Your task to perform on an android device: Open network settings Image 0: 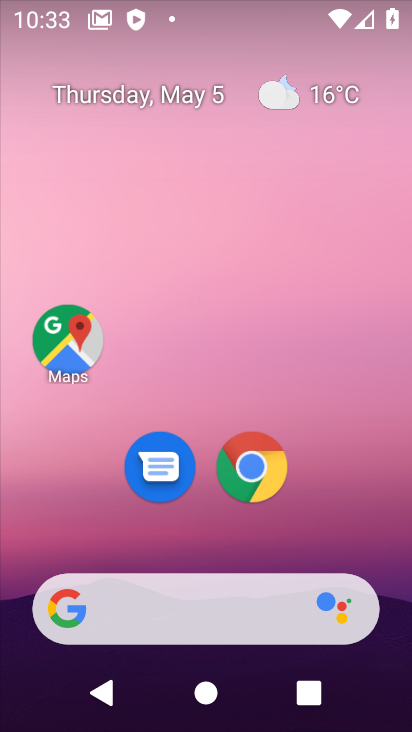
Step 0: drag from (210, 501) to (195, 237)
Your task to perform on an android device: Open network settings Image 1: 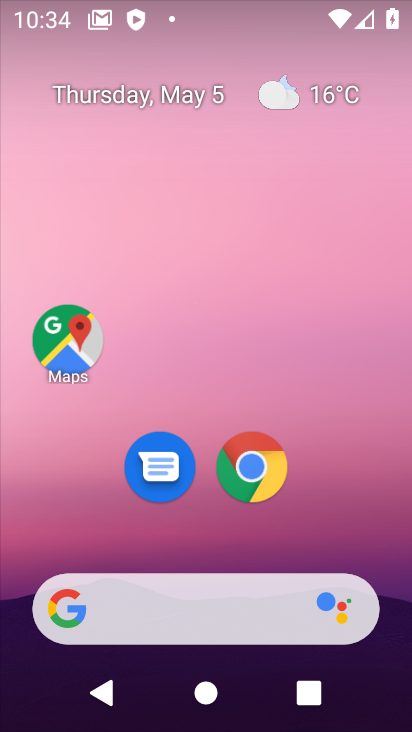
Step 1: drag from (200, 557) to (195, 158)
Your task to perform on an android device: Open network settings Image 2: 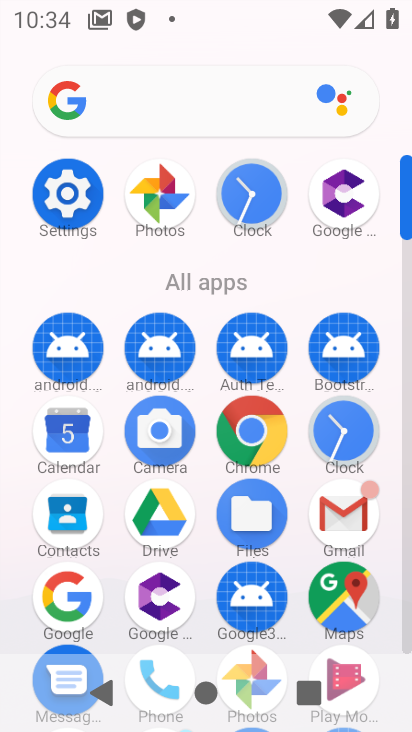
Step 2: click (75, 204)
Your task to perform on an android device: Open network settings Image 3: 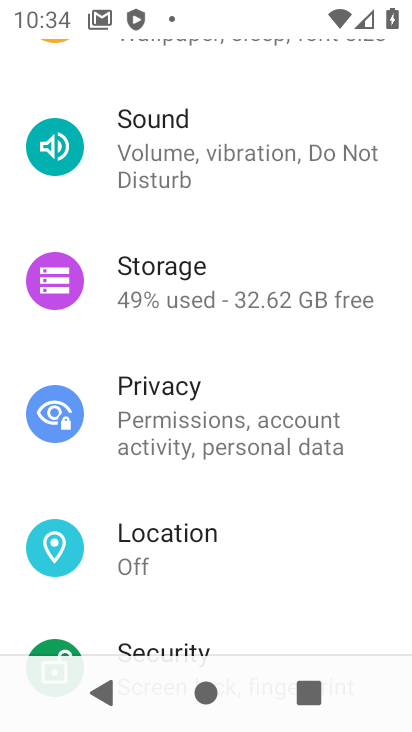
Step 3: drag from (257, 118) to (246, 553)
Your task to perform on an android device: Open network settings Image 4: 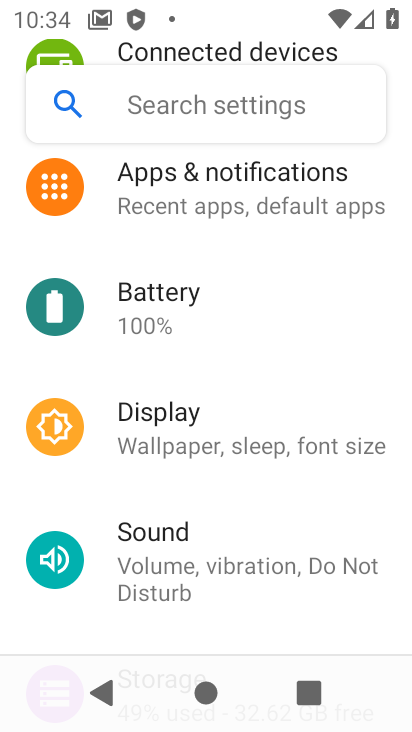
Step 4: drag from (260, 251) to (234, 646)
Your task to perform on an android device: Open network settings Image 5: 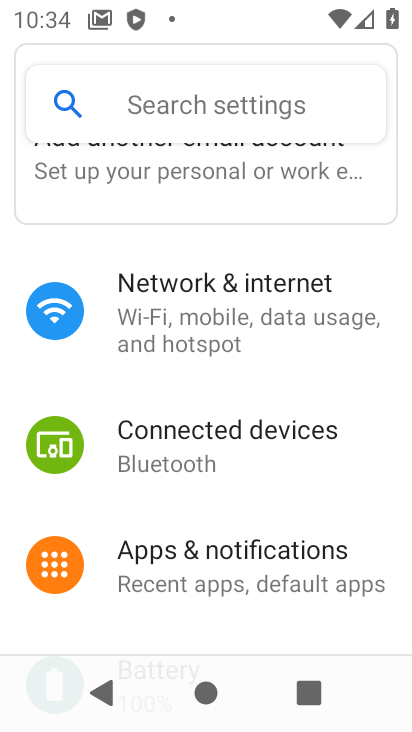
Step 5: click (258, 308)
Your task to perform on an android device: Open network settings Image 6: 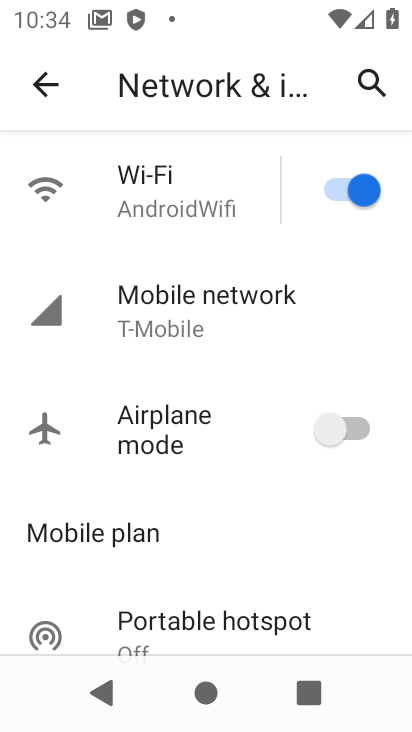
Step 6: click (258, 308)
Your task to perform on an android device: Open network settings Image 7: 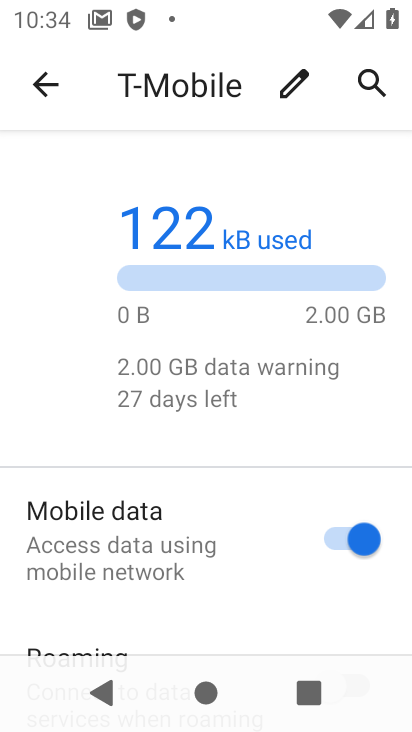
Step 7: task complete